Your task to perform on an android device: What is the recent news? Image 0: 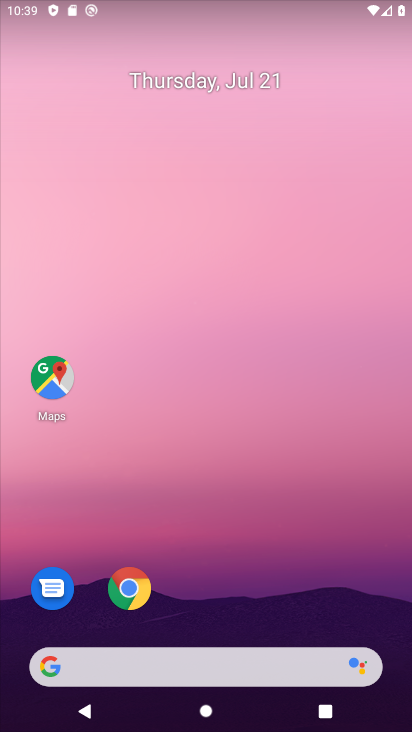
Step 0: drag from (257, 627) to (327, 3)
Your task to perform on an android device: What is the recent news? Image 1: 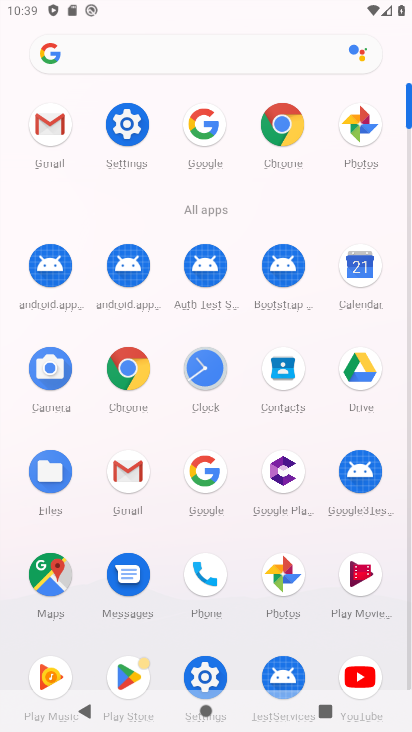
Step 1: click (127, 385)
Your task to perform on an android device: What is the recent news? Image 2: 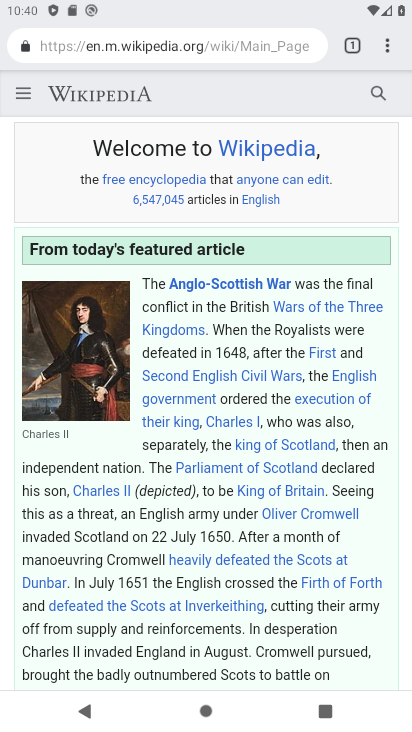
Step 2: task complete